Your task to perform on an android device: open a new tab in the chrome app Image 0: 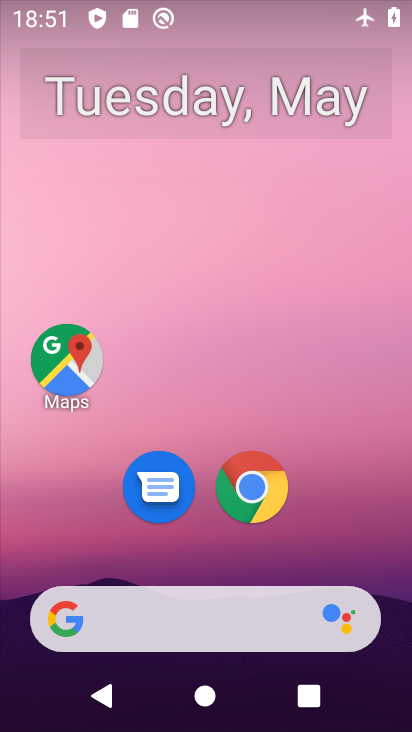
Step 0: click (256, 491)
Your task to perform on an android device: open a new tab in the chrome app Image 1: 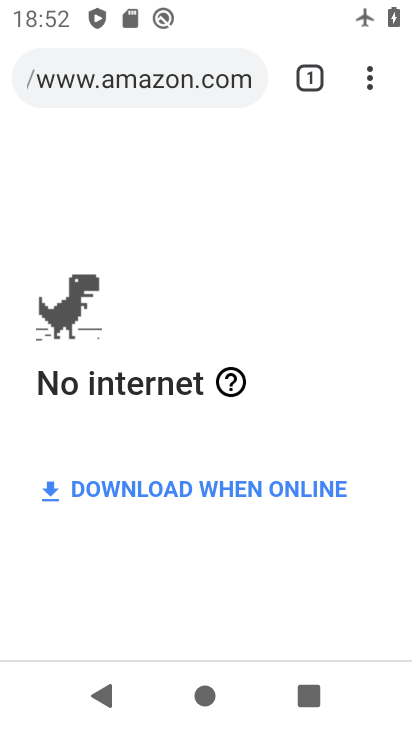
Step 1: click (371, 78)
Your task to perform on an android device: open a new tab in the chrome app Image 2: 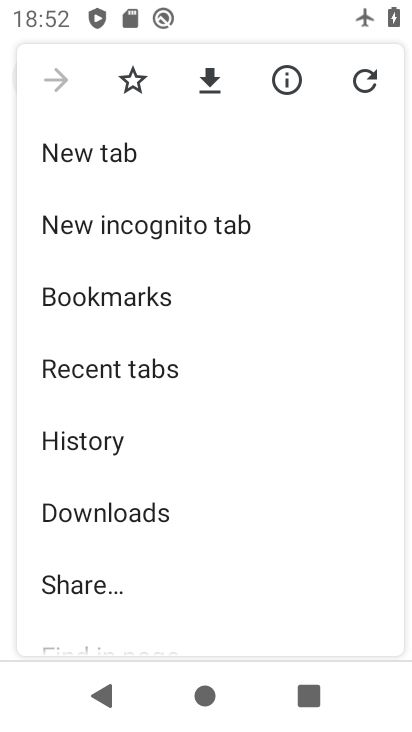
Step 2: click (94, 157)
Your task to perform on an android device: open a new tab in the chrome app Image 3: 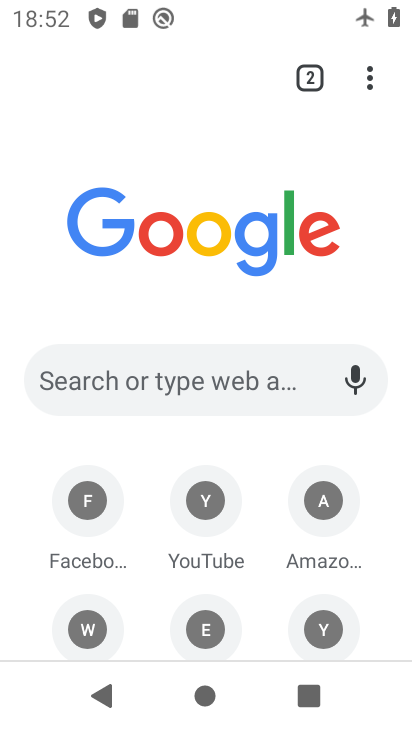
Step 3: task complete